Your task to perform on an android device: turn on wifi Image 0: 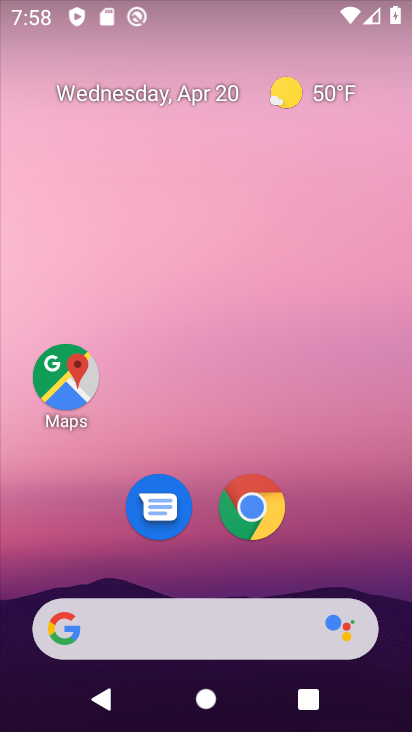
Step 0: drag from (268, 664) to (291, 223)
Your task to perform on an android device: turn on wifi Image 1: 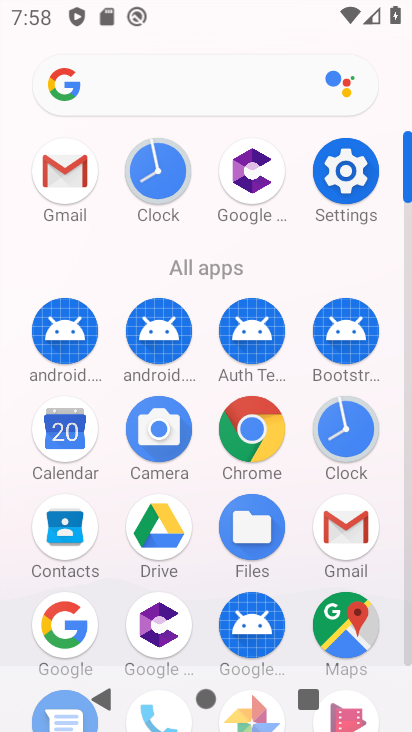
Step 1: drag from (251, 543) to (276, 356)
Your task to perform on an android device: turn on wifi Image 2: 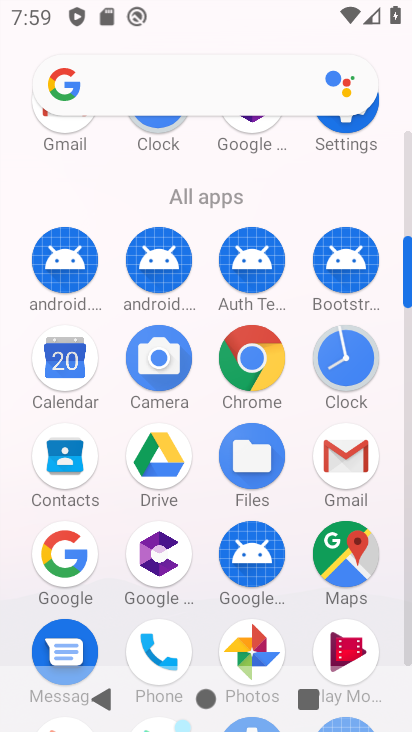
Step 2: drag from (230, 616) to (260, 268)
Your task to perform on an android device: turn on wifi Image 3: 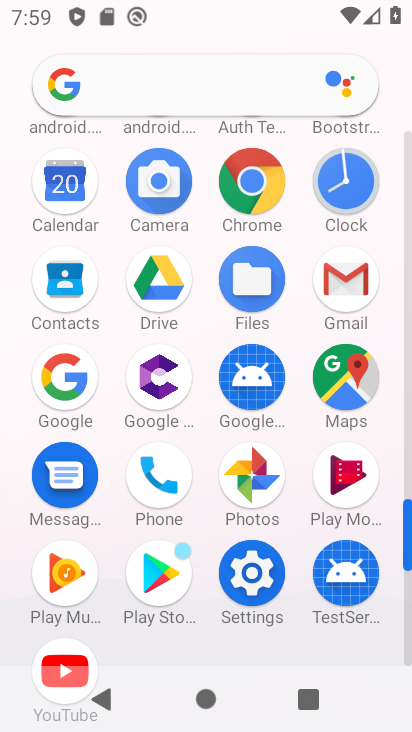
Step 3: click (258, 594)
Your task to perform on an android device: turn on wifi Image 4: 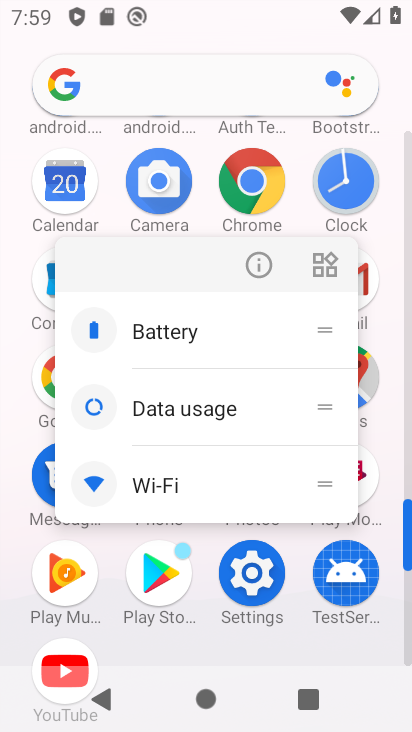
Step 4: click (237, 586)
Your task to perform on an android device: turn on wifi Image 5: 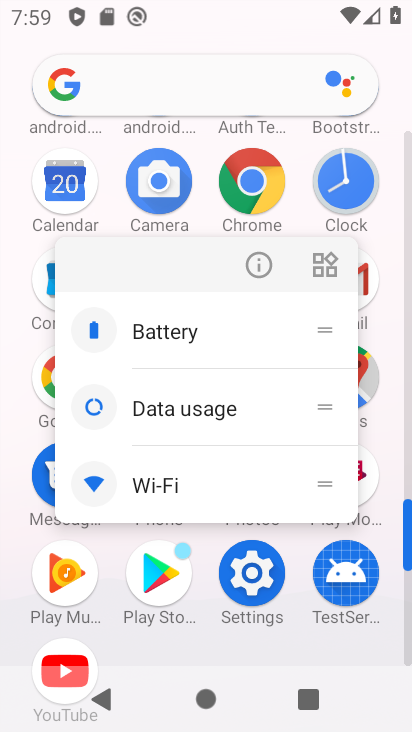
Step 5: click (237, 586)
Your task to perform on an android device: turn on wifi Image 6: 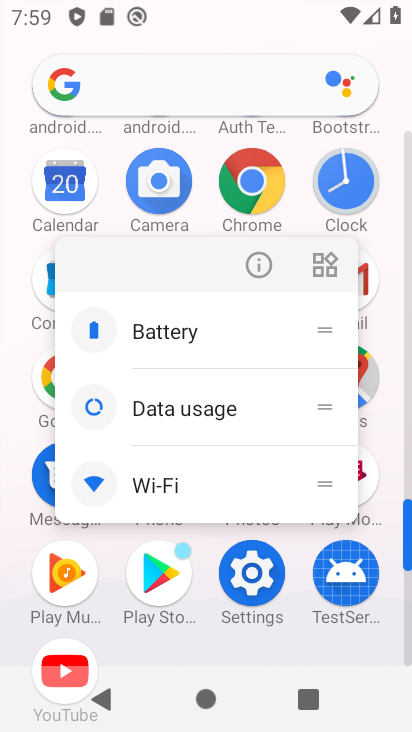
Step 6: click (252, 592)
Your task to perform on an android device: turn on wifi Image 7: 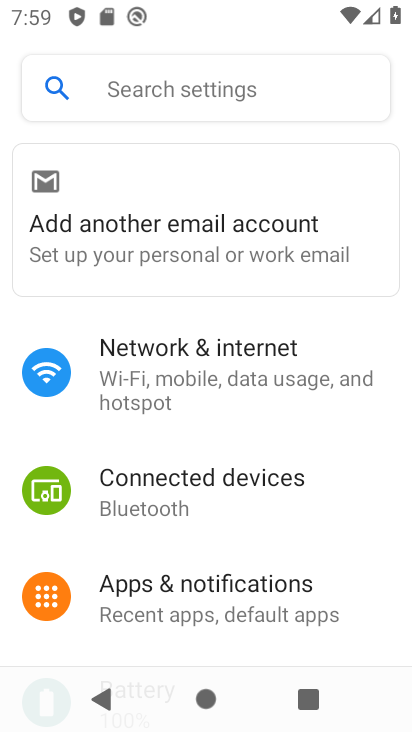
Step 7: click (255, 372)
Your task to perform on an android device: turn on wifi Image 8: 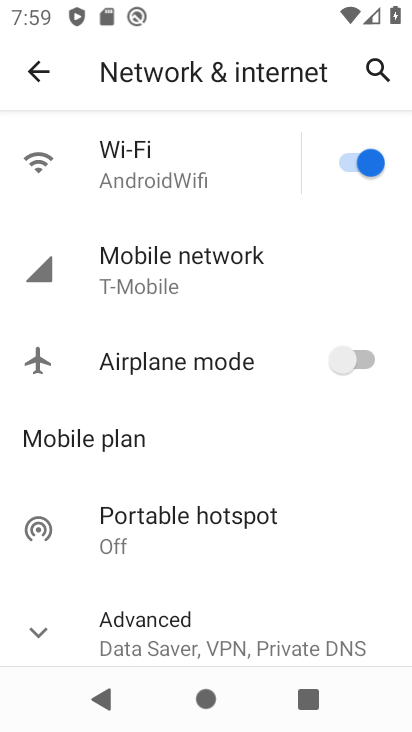
Step 8: task complete